Your task to perform on an android device: check battery use Image 0: 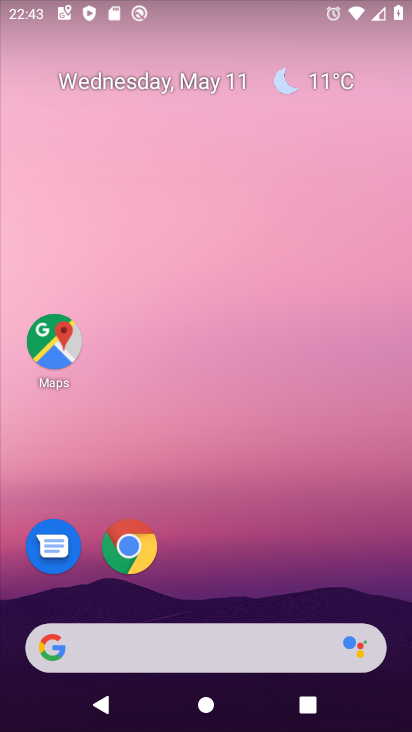
Step 0: drag from (395, 622) to (309, 145)
Your task to perform on an android device: check battery use Image 1: 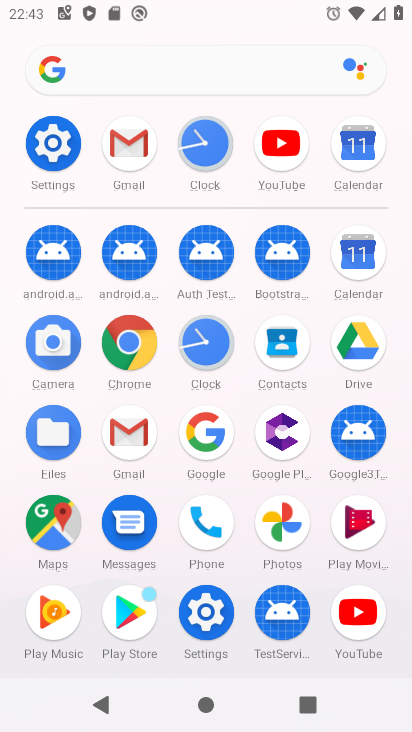
Step 1: click (207, 612)
Your task to perform on an android device: check battery use Image 2: 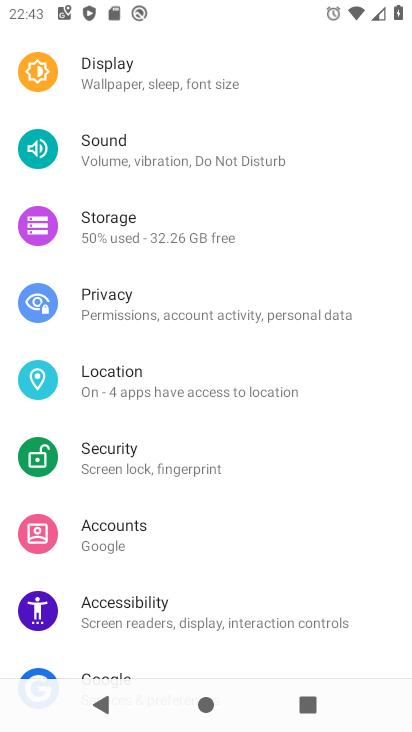
Step 2: drag from (353, 168) to (349, 413)
Your task to perform on an android device: check battery use Image 3: 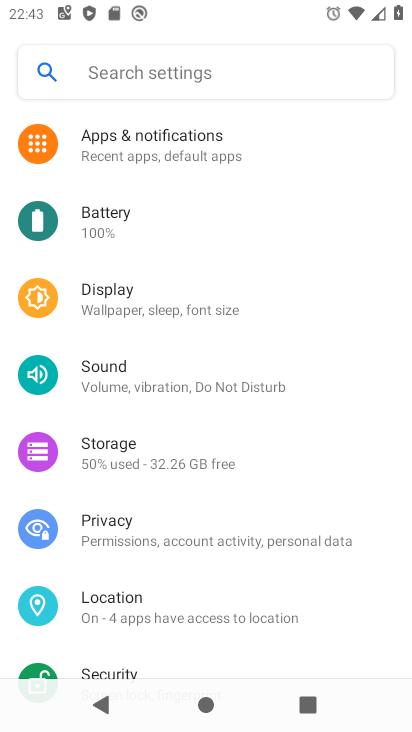
Step 3: click (100, 210)
Your task to perform on an android device: check battery use Image 4: 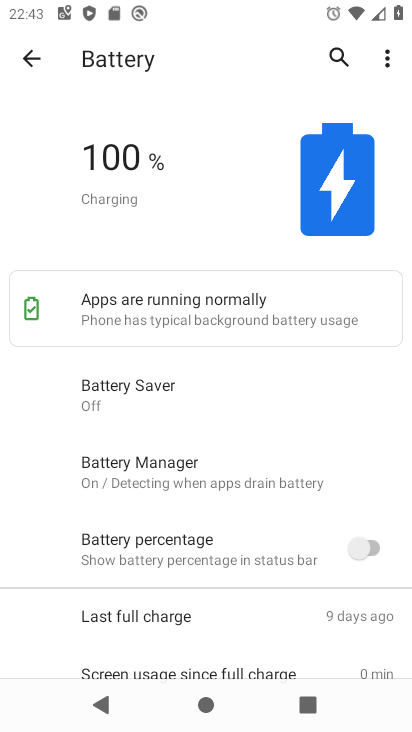
Step 4: drag from (282, 562) to (257, 273)
Your task to perform on an android device: check battery use Image 5: 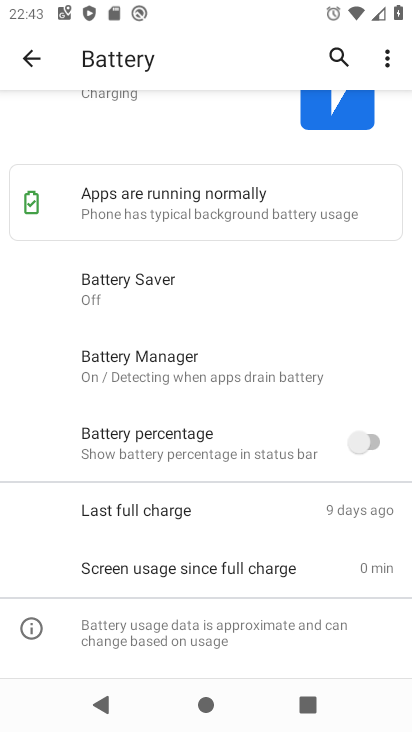
Step 5: click (384, 59)
Your task to perform on an android device: check battery use Image 6: 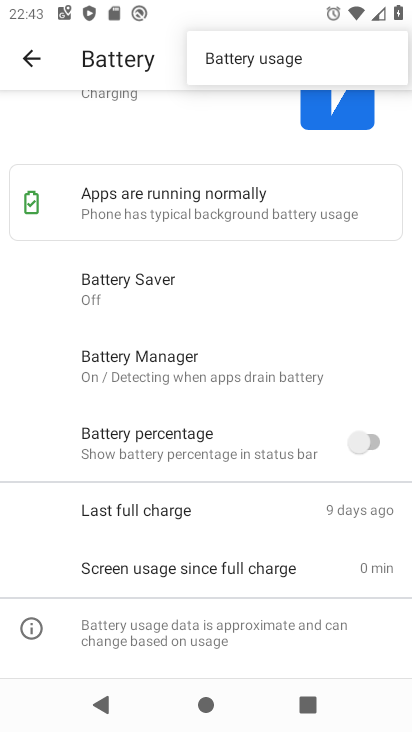
Step 6: click (236, 56)
Your task to perform on an android device: check battery use Image 7: 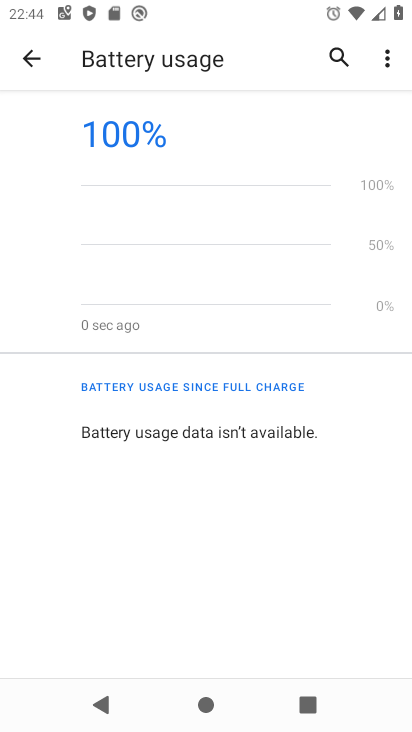
Step 7: task complete